Your task to perform on an android device: toggle pop-ups in chrome Image 0: 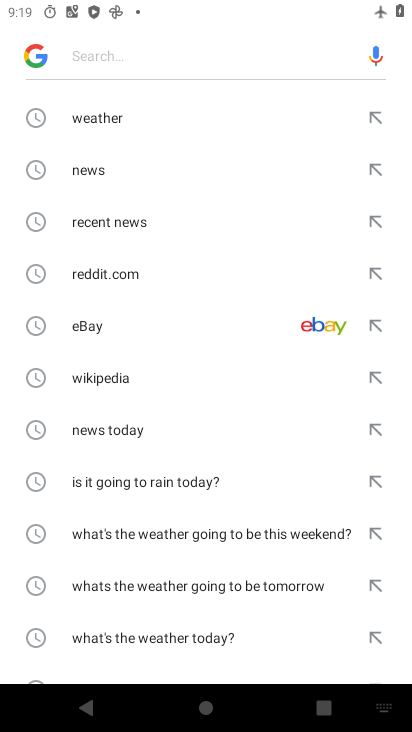
Step 0: press home button
Your task to perform on an android device: toggle pop-ups in chrome Image 1: 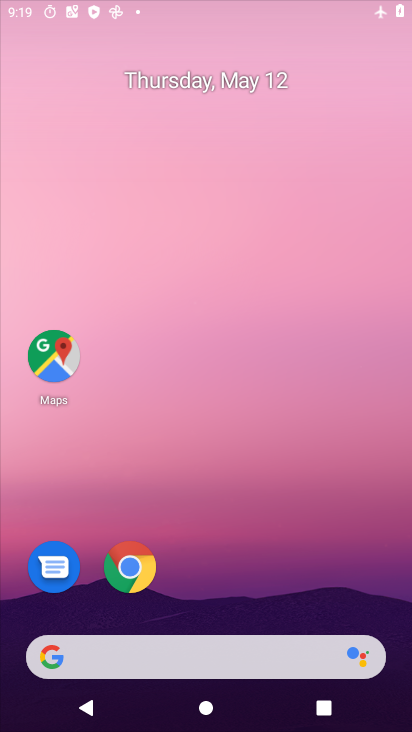
Step 1: drag from (206, 622) to (214, 146)
Your task to perform on an android device: toggle pop-ups in chrome Image 2: 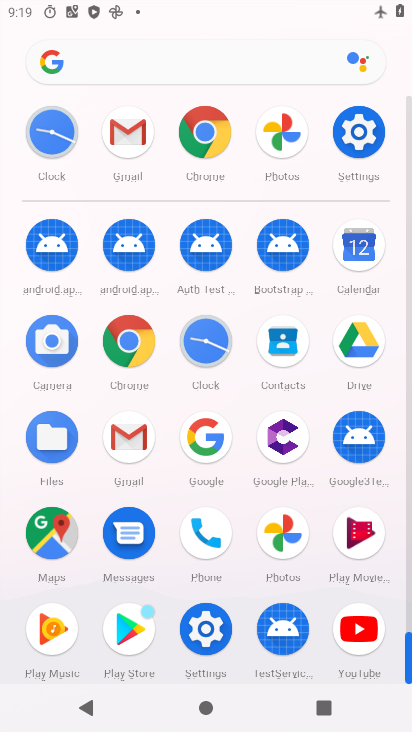
Step 2: click (211, 154)
Your task to perform on an android device: toggle pop-ups in chrome Image 3: 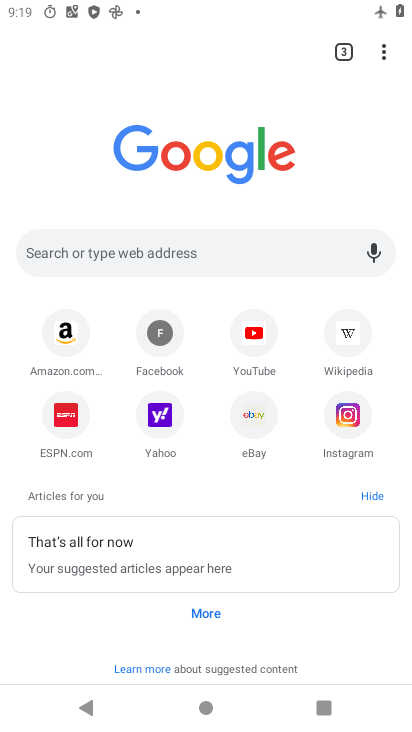
Step 3: click (382, 63)
Your task to perform on an android device: toggle pop-ups in chrome Image 4: 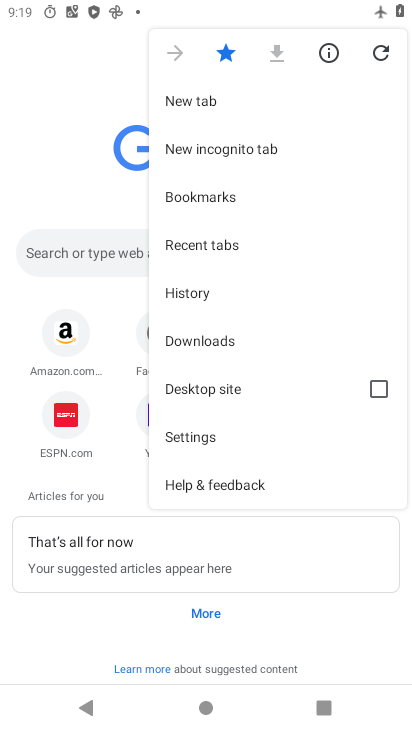
Step 4: drag from (235, 436) to (235, 273)
Your task to perform on an android device: toggle pop-ups in chrome Image 5: 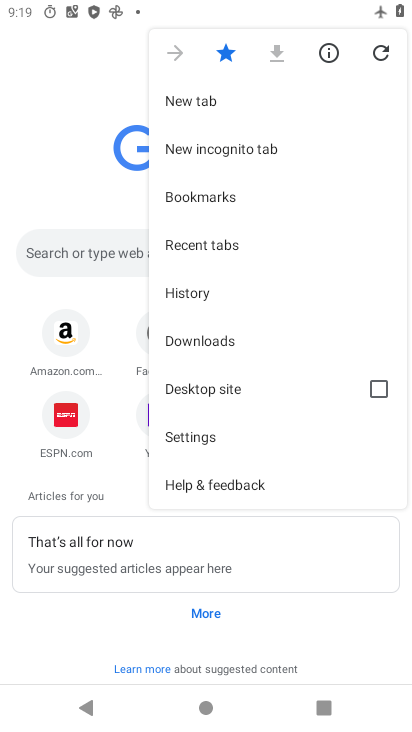
Step 5: click (249, 435)
Your task to perform on an android device: toggle pop-ups in chrome Image 6: 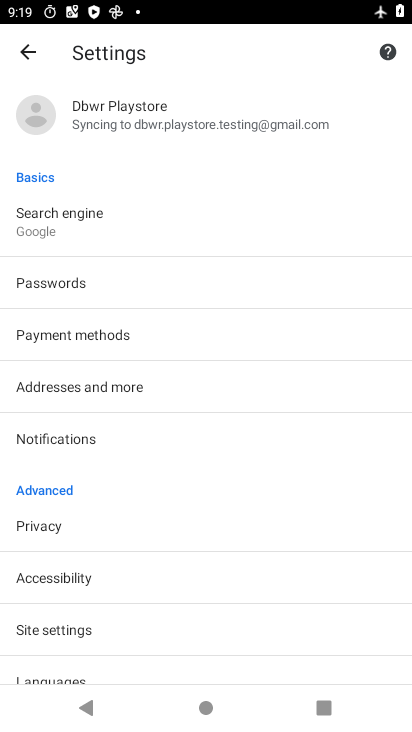
Step 6: drag from (235, 587) to (294, 297)
Your task to perform on an android device: toggle pop-ups in chrome Image 7: 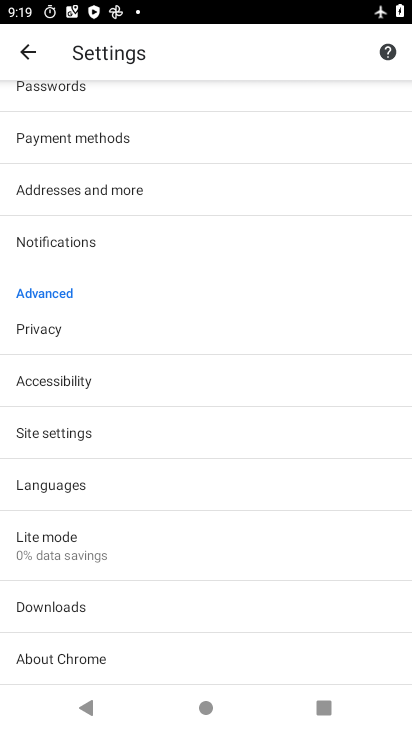
Step 7: click (112, 438)
Your task to perform on an android device: toggle pop-ups in chrome Image 8: 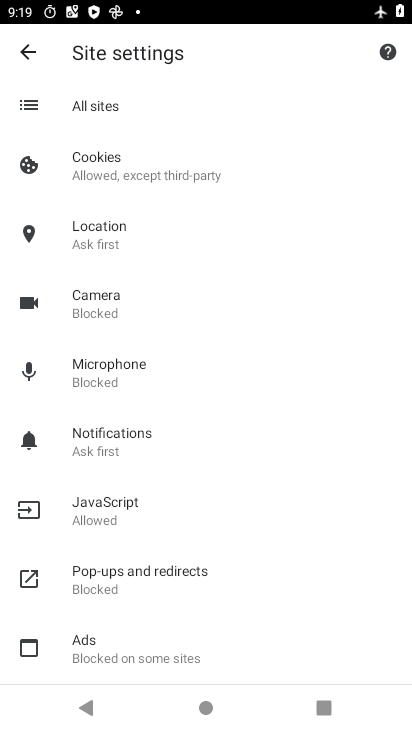
Step 8: click (192, 573)
Your task to perform on an android device: toggle pop-ups in chrome Image 9: 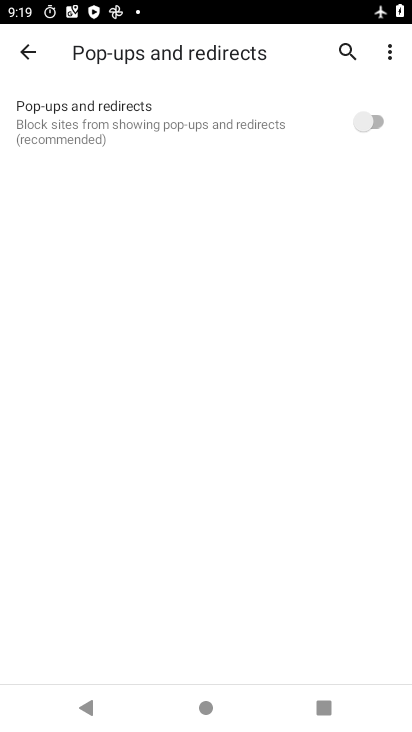
Step 9: click (340, 117)
Your task to perform on an android device: toggle pop-ups in chrome Image 10: 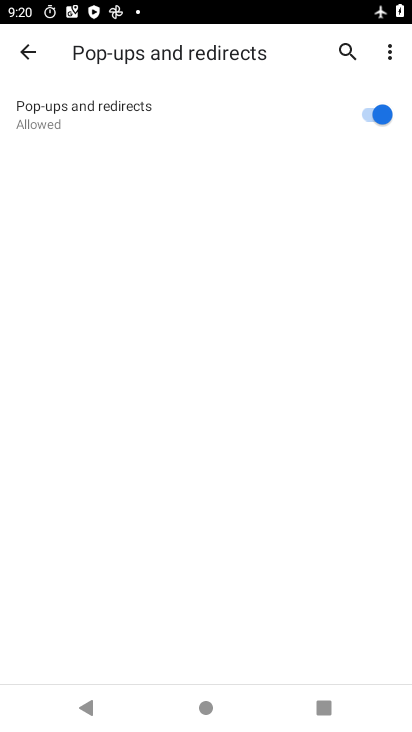
Step 10: task complete